Your task to perform on an android device: Open settings on Google Maps Image 0: 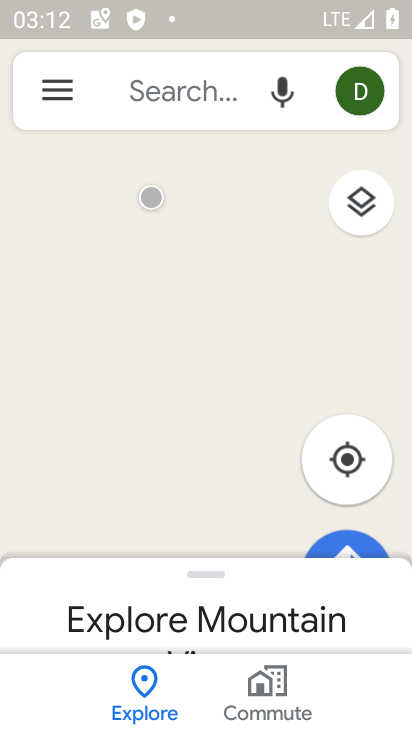
Step 0: press home button
Your task to perform on an android device: Open settings on Google Maps Image 1: 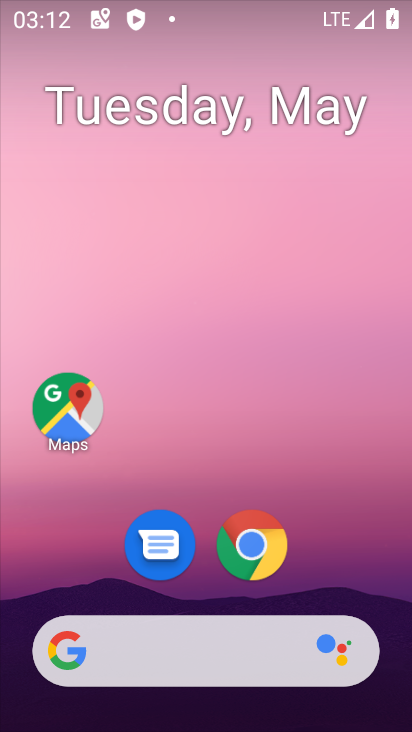
Step 1: click (63, 406)
Your task to perform on an android device: Open settings on Google Maps Image 2: 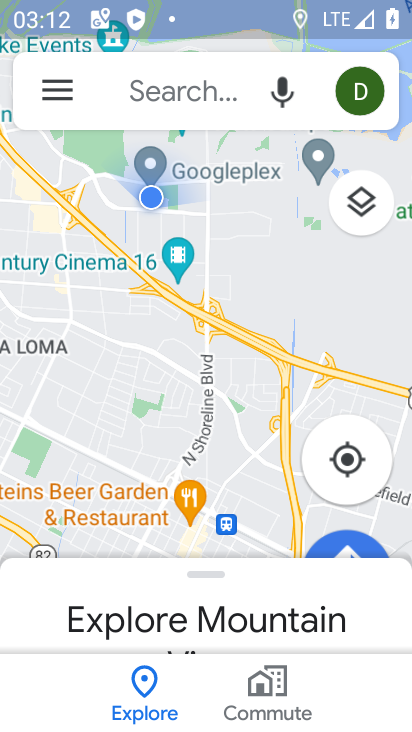
Step 2: drag from (256, 290) to (237, 496)
Your task to perform on an android device: Open settings on Google Maps Image 3: 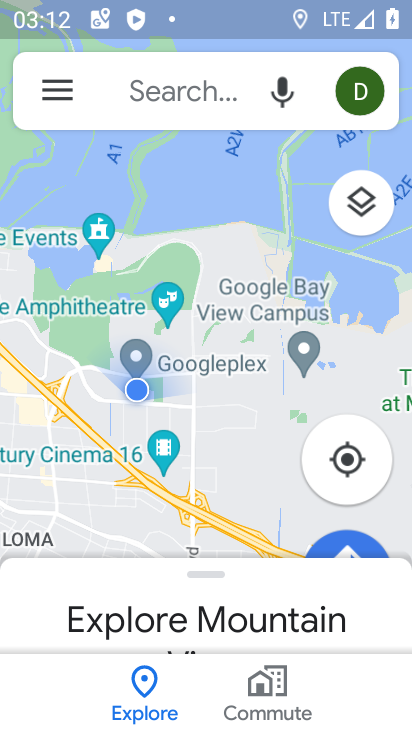
Step 3: click (66, 86)
Your task to perform on an android device: Open settings on Google Maps Image 4: 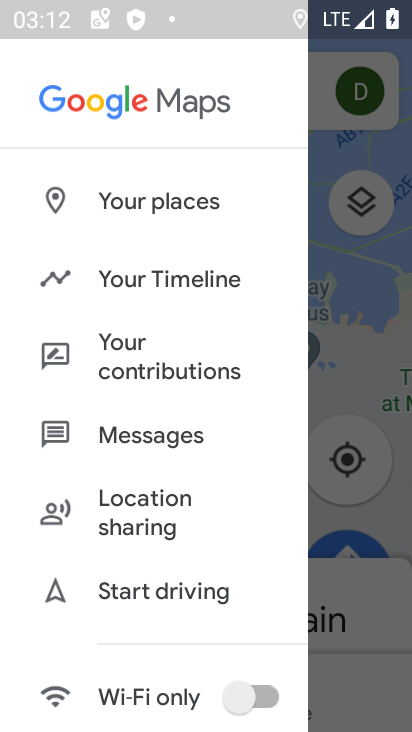
Step 4: drag from (243, 611) to (260, 167)
Your task to perform on an android device: Open settings on Google Maps Image 5: 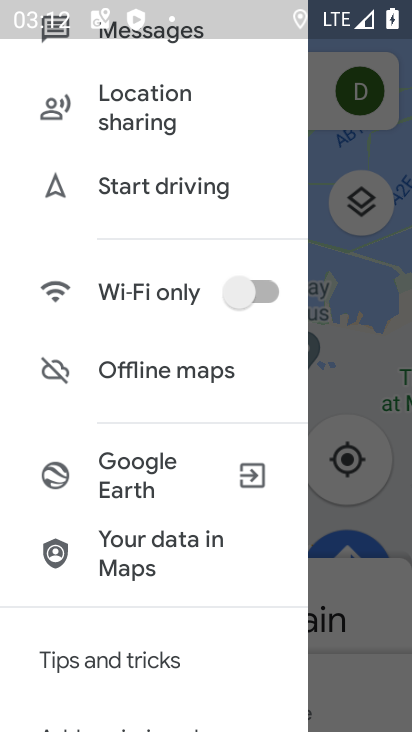
Step 5: drag from (230, 649) to (221, 153)
Your task to perform on an android device: Open settings on Google Maps Image 6: 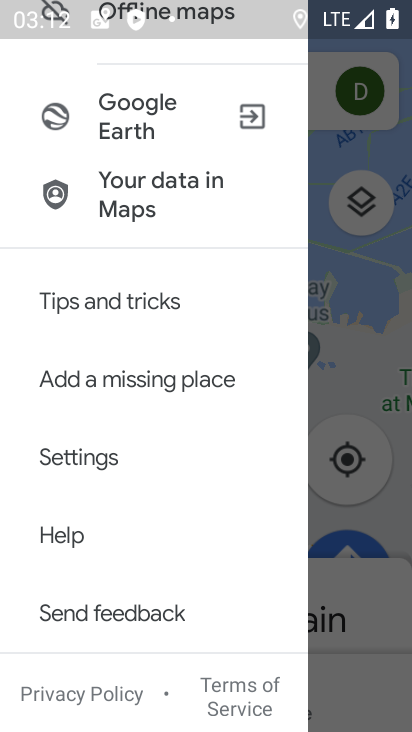
Step 6: click (67, 453)
Your task to perform on an android device: Open settings on Google Maps Image 7: 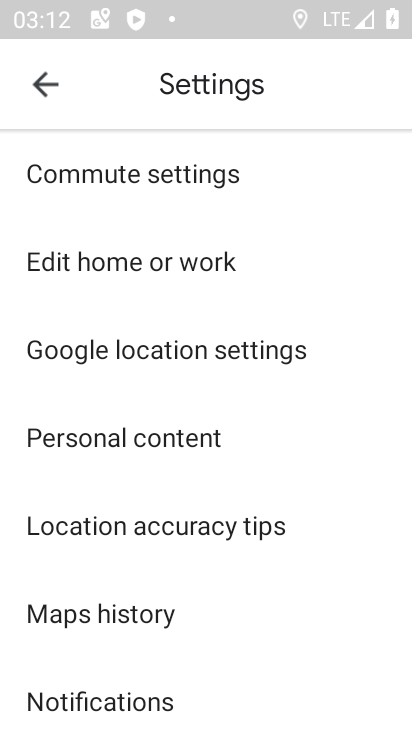
Step 7: task complete